Your task to perform on an android device: Show the shopping cart on costco.com. Image 0: 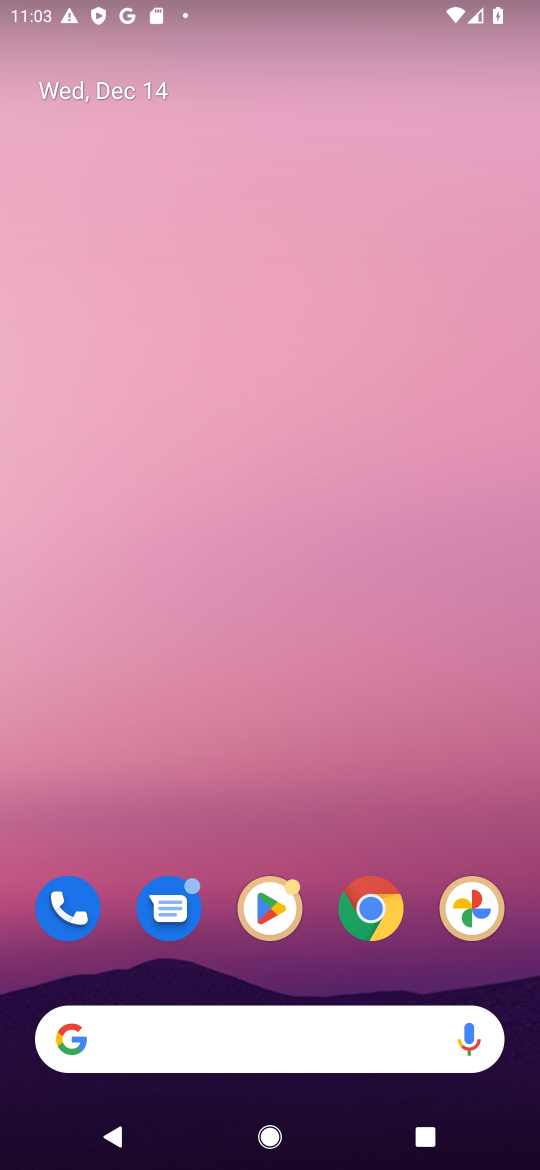
Step 0: click (377, 944)
Your task to perform on an android device: Show the shopping cart on costco.com. Image 1: 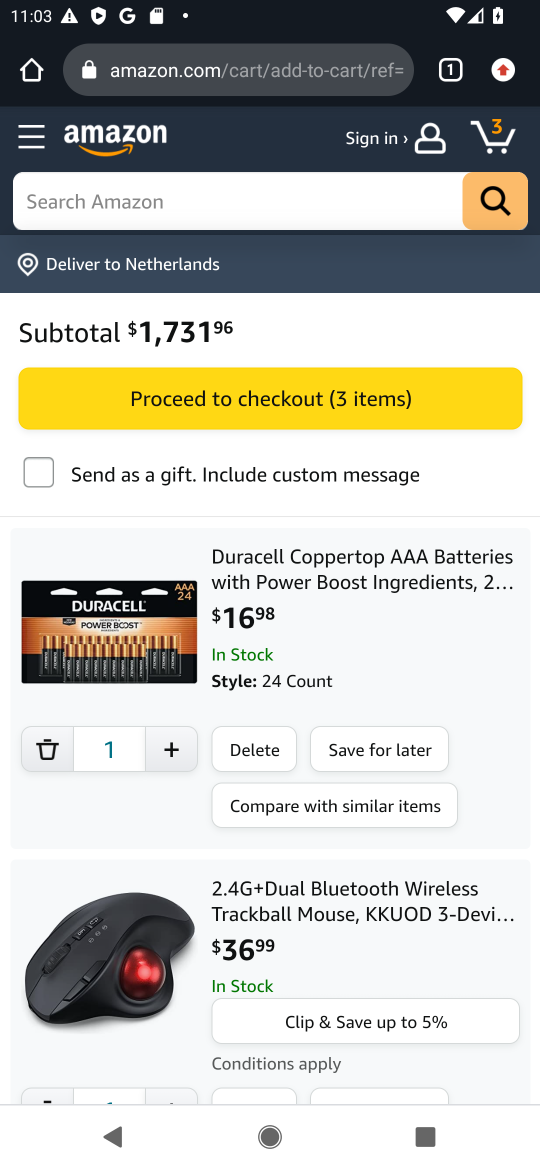
Step 1: click (279, 62)
Your task to perform on an android device: Show the shopping cart on costco.com. Image 2: 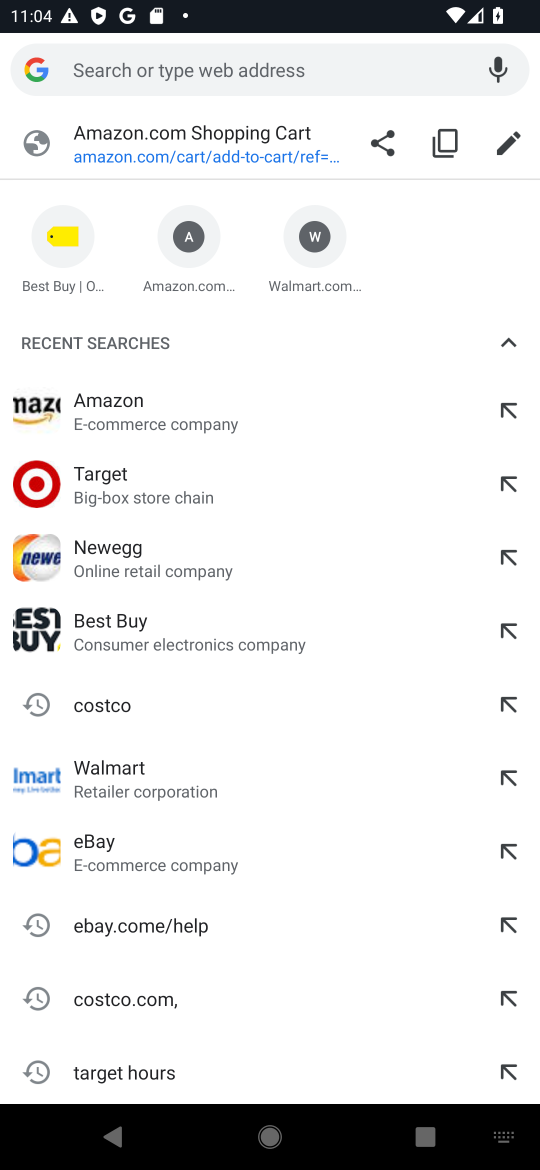
Step 2: type "costco"
Your task to perform on an android device: Show the shopping cart on costco.com. Image 3: 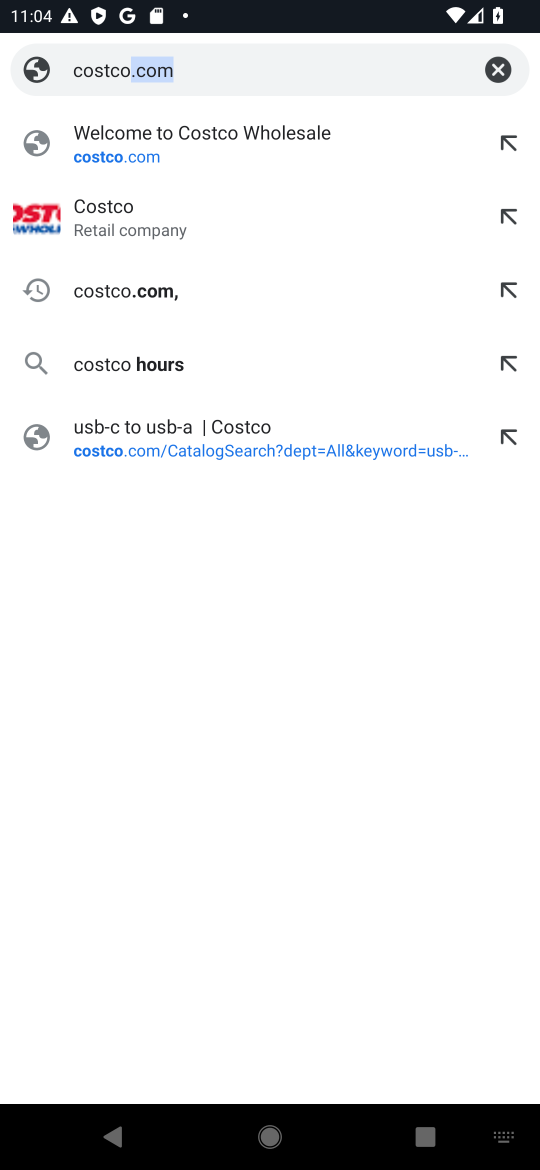
Step 3: click (211, 236)
Your task to perform on an android device: Show the shopping cart on costco.com. Image 4: 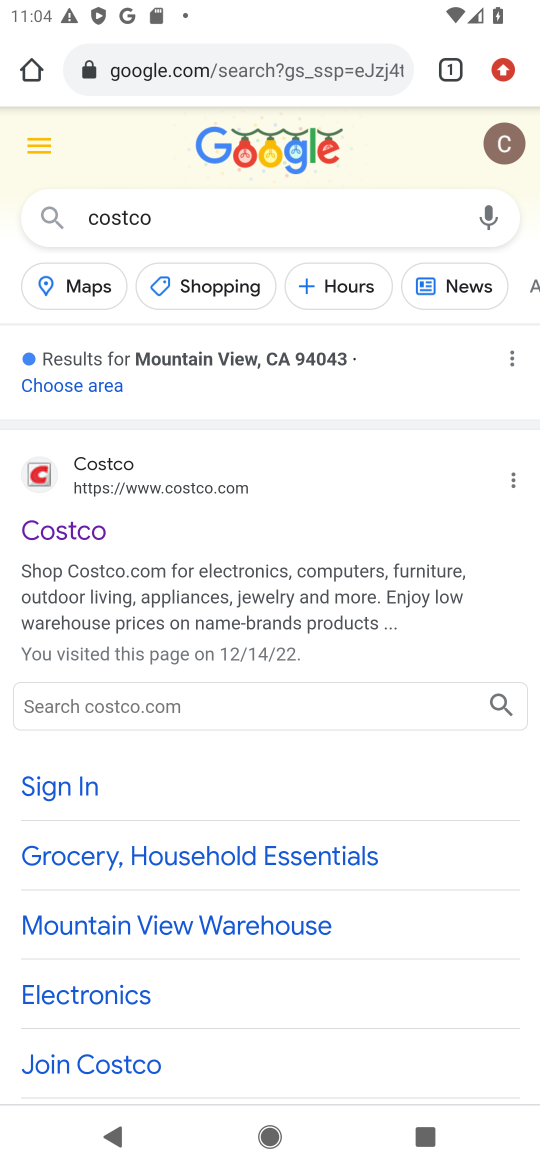
Step 4: click (73, 548)
Your task to perform on an android device: Show the shopping cart on costco.com. Image 5: 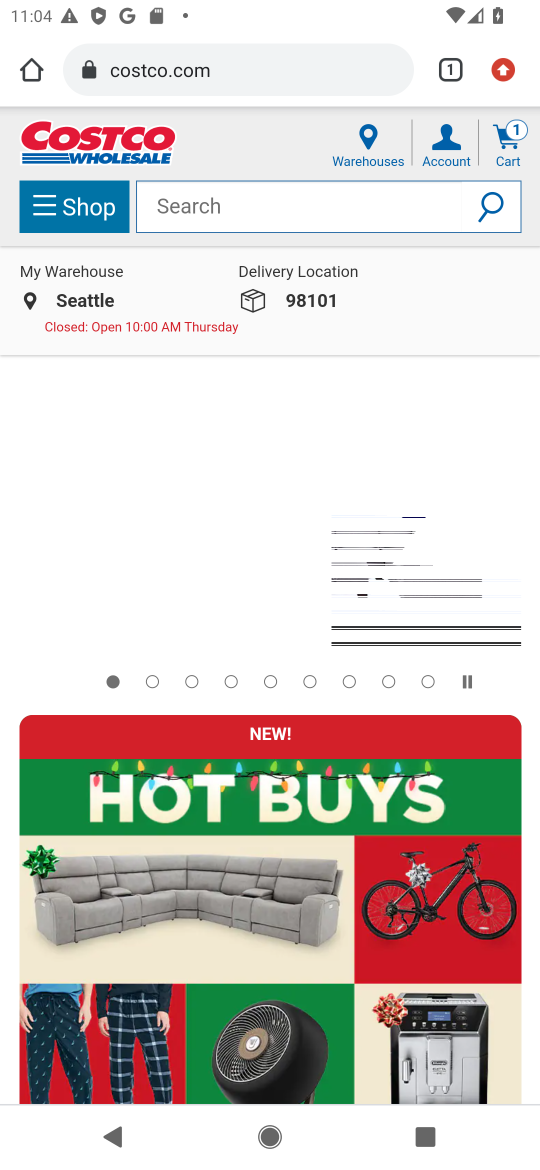
Step 5: click (523, 141)
Your task to perform on an android device: Show the shopping cart on costco.com. Image 6: 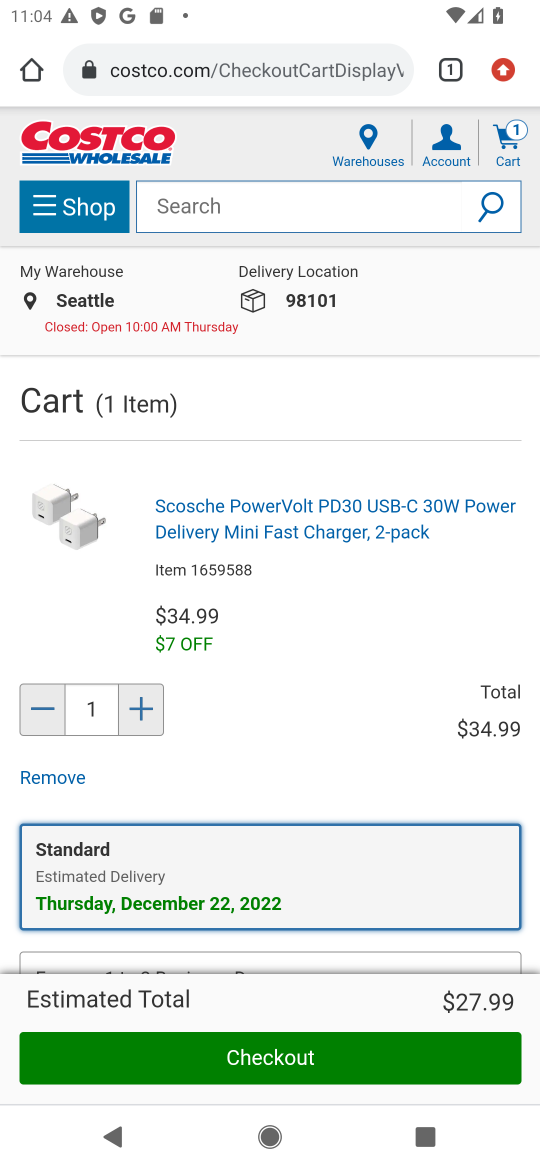
Step 6: click (40, 770)
Your task to perform on an android device: Show the shopping cart on costco.com. Image 7: 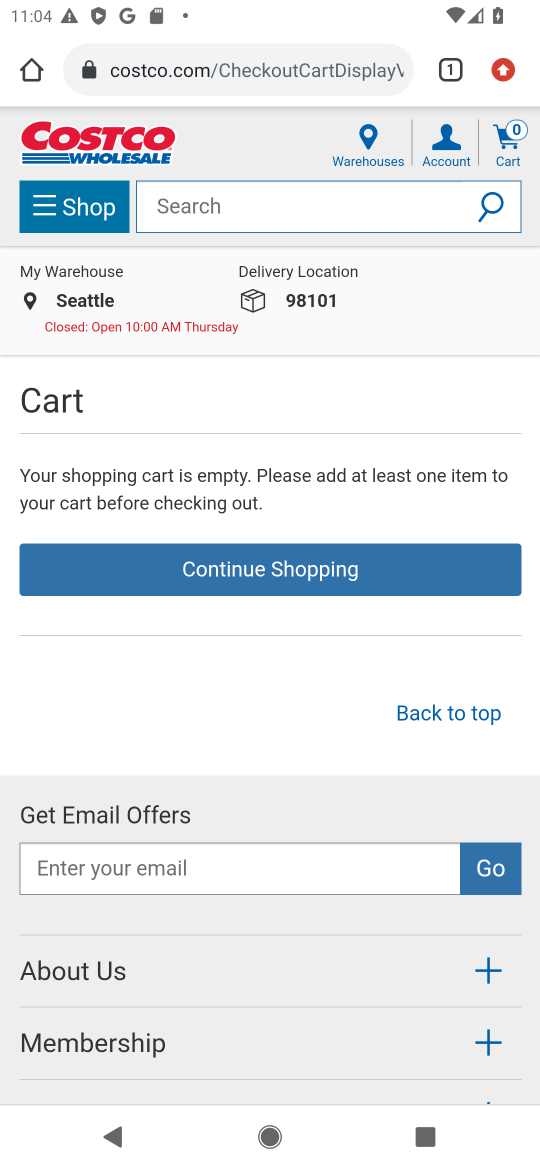
Step 7: task complete